Your task to perform on an android device: Go to settings Image 0: 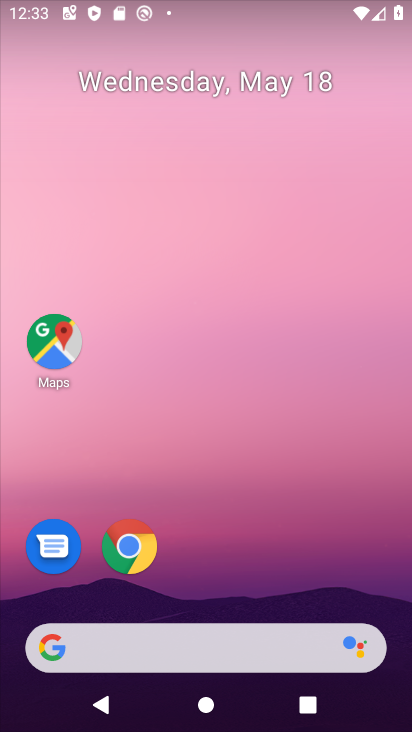
Step 0: drag from (271, 584) to (292, 55)
Your task to perform on an android device: Go to settings Image 1: 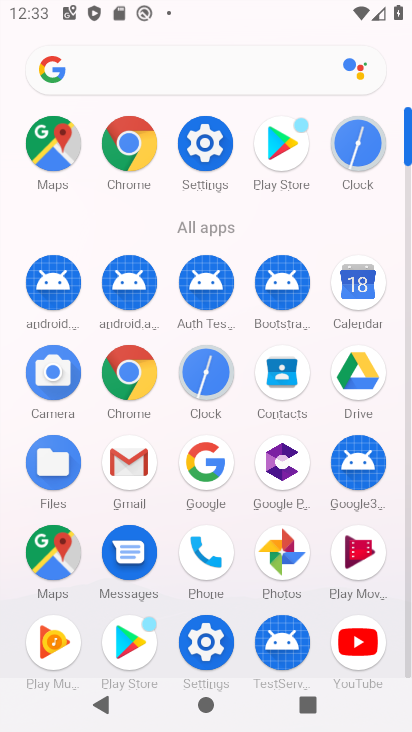
Step 1: click (205, 144)
Your task to perform on an android device: Go to settings Image 2: 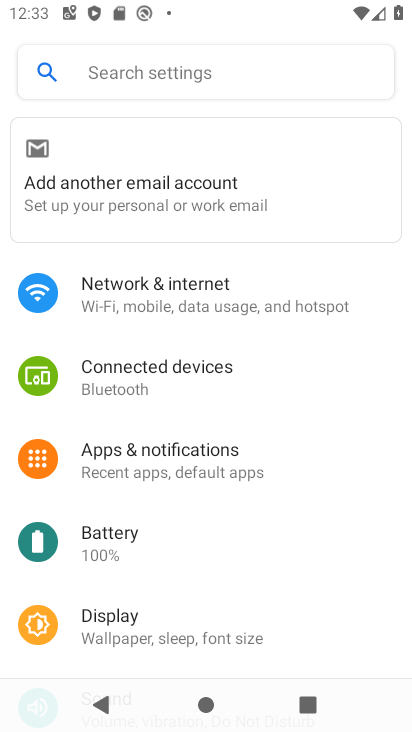
Step 2: task complete